Your task to perform on an android device: change the clock display to digital Image 0: 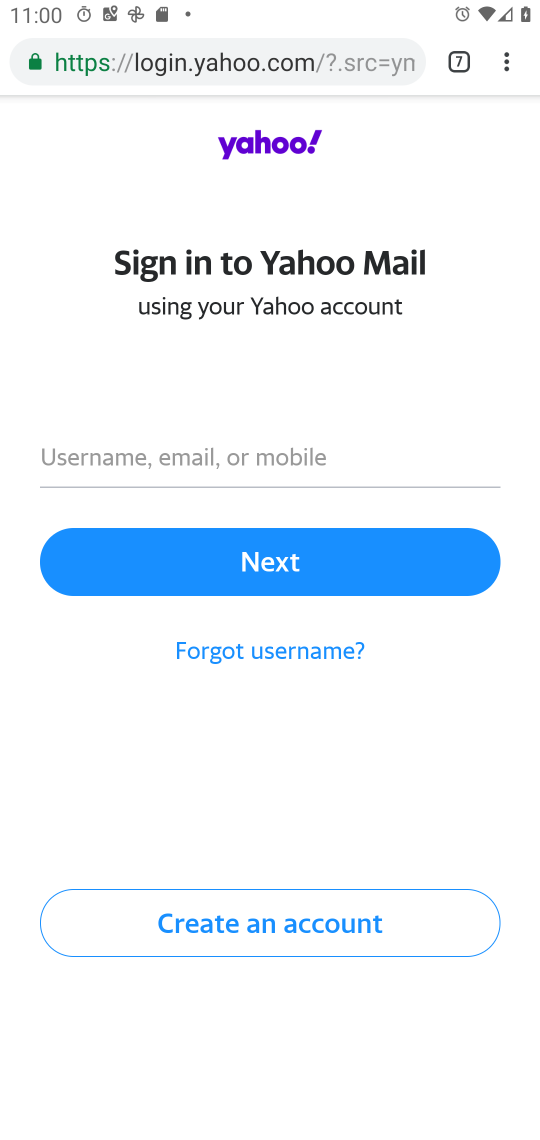
Step 0: press home button
Your task to perform on an android device: change the clock display to digital Image 1: 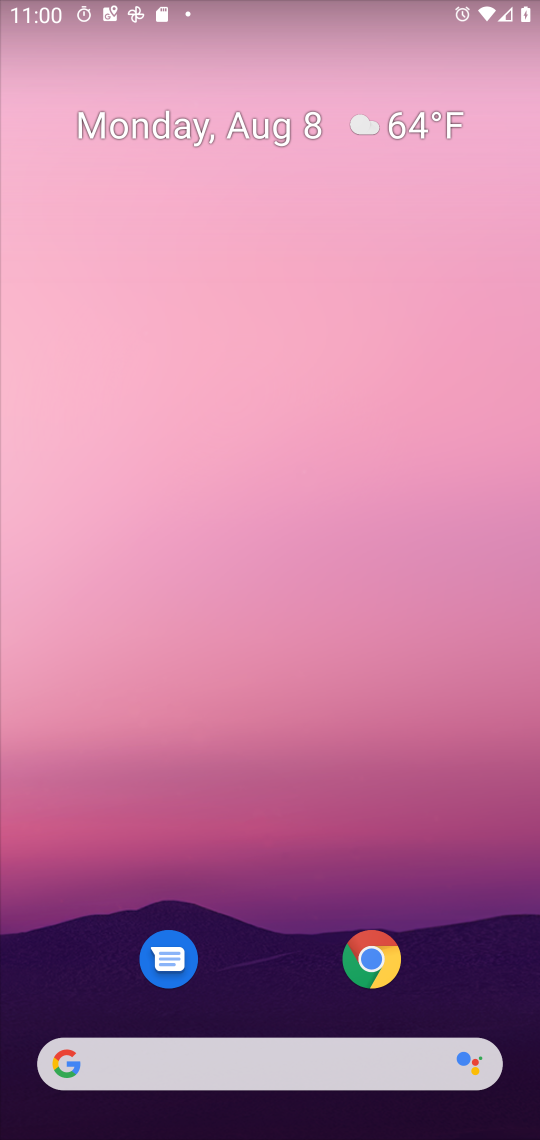
Step 1: drag from (506, 971) to (245, 32)
Your task to perform on an android device: change the clock display to digital Image 2: 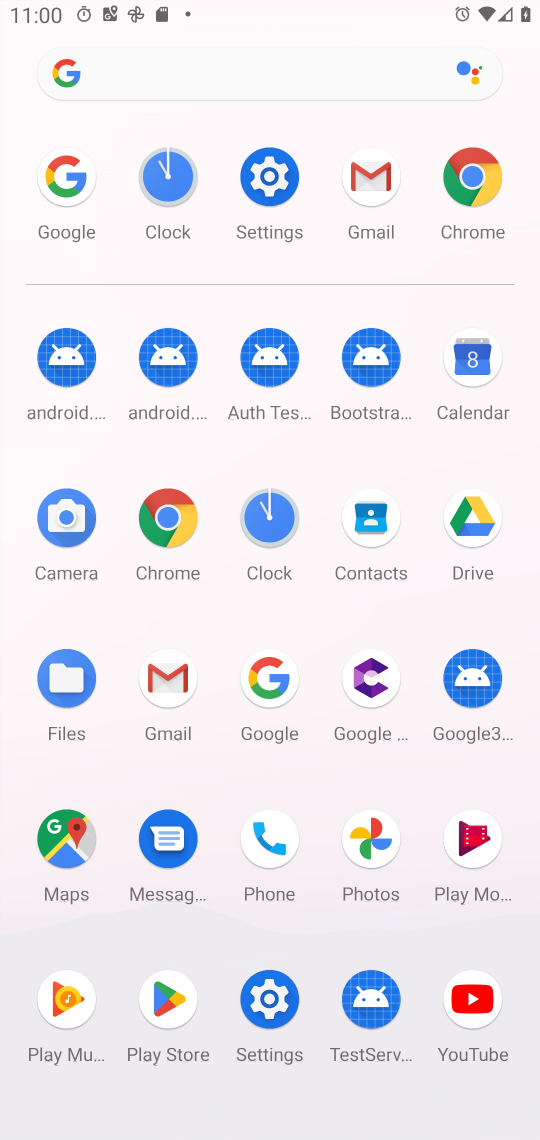
Step 2: click (295, 537)
Your task to perform on an android device: change the clock display to digital Image 3: 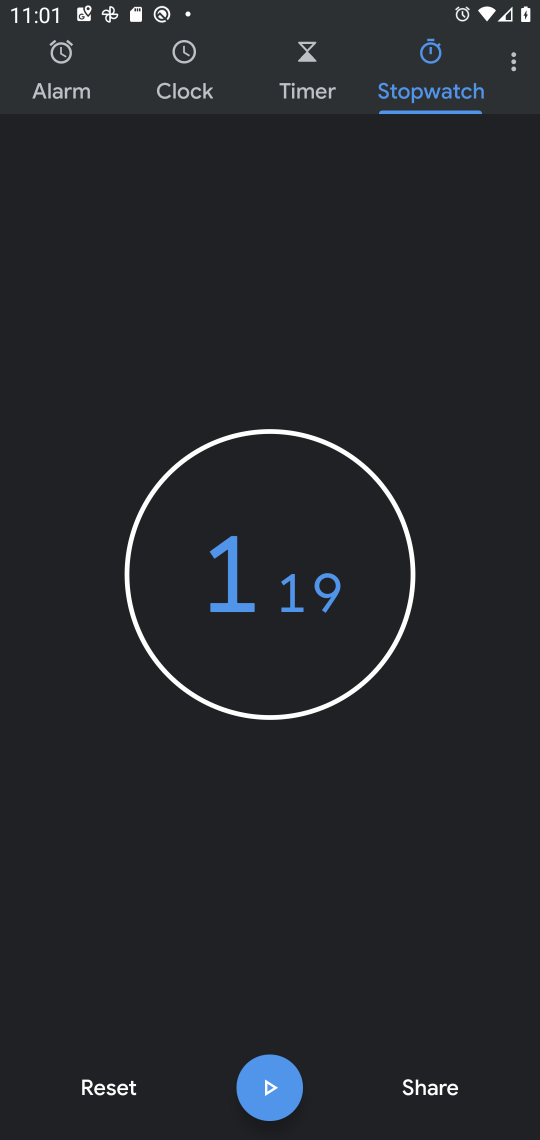
Step 3: click (499, 62)
Your task to perform on an android device: change the clock display to digital Image 4: 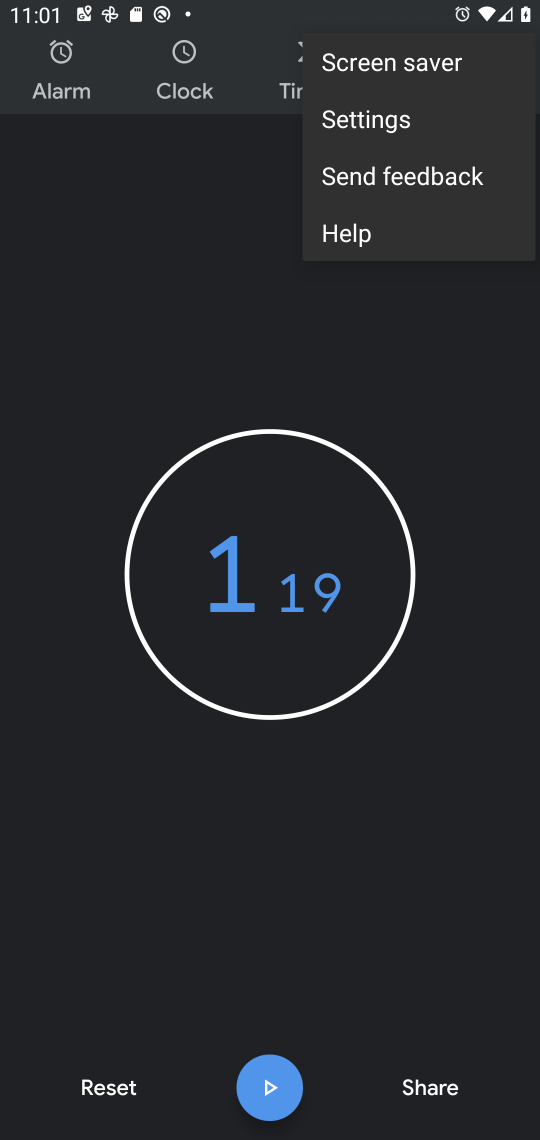
Step 4: click (380, 121)
Your task to perform on an android device: change the clock display to digital Image 5: 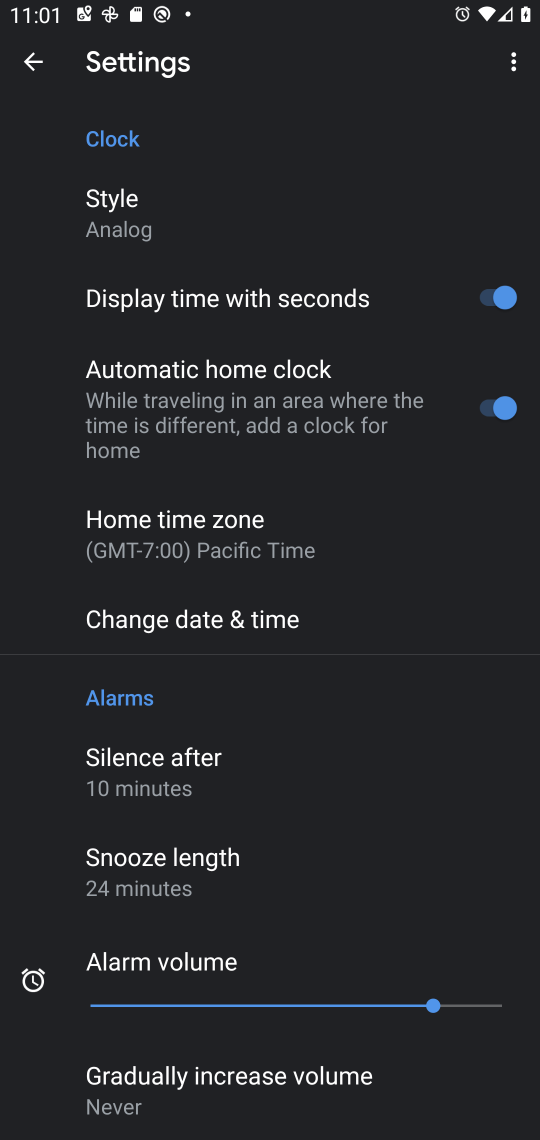
Step 5: click (147, 227)
Your task to perform on an android device: change the clock display to digital Image 6: 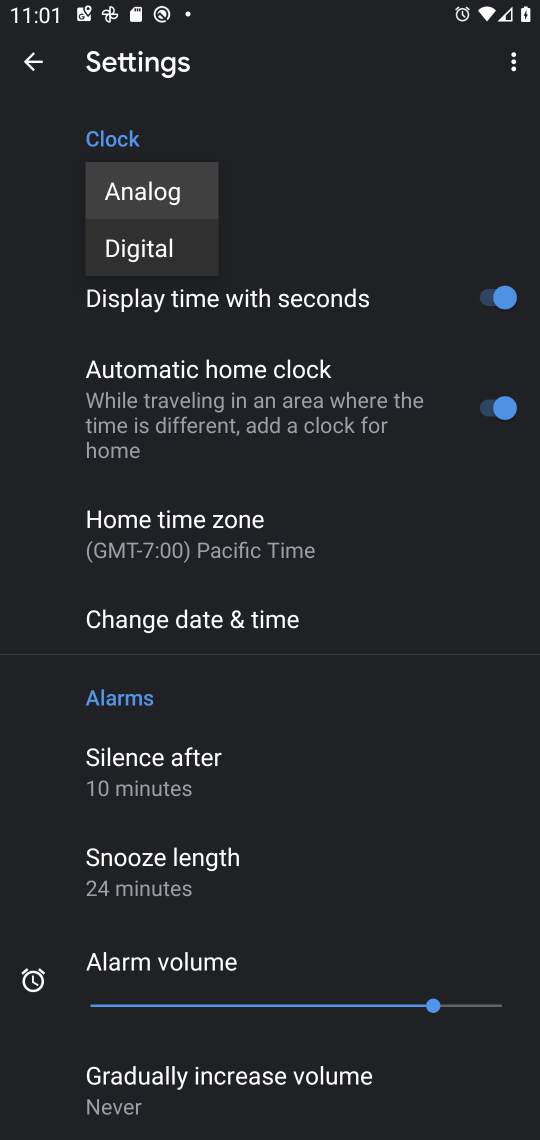
Step 6: click (152, 250)
Your task to perform on an android device: change the clock display to digital Image 7: 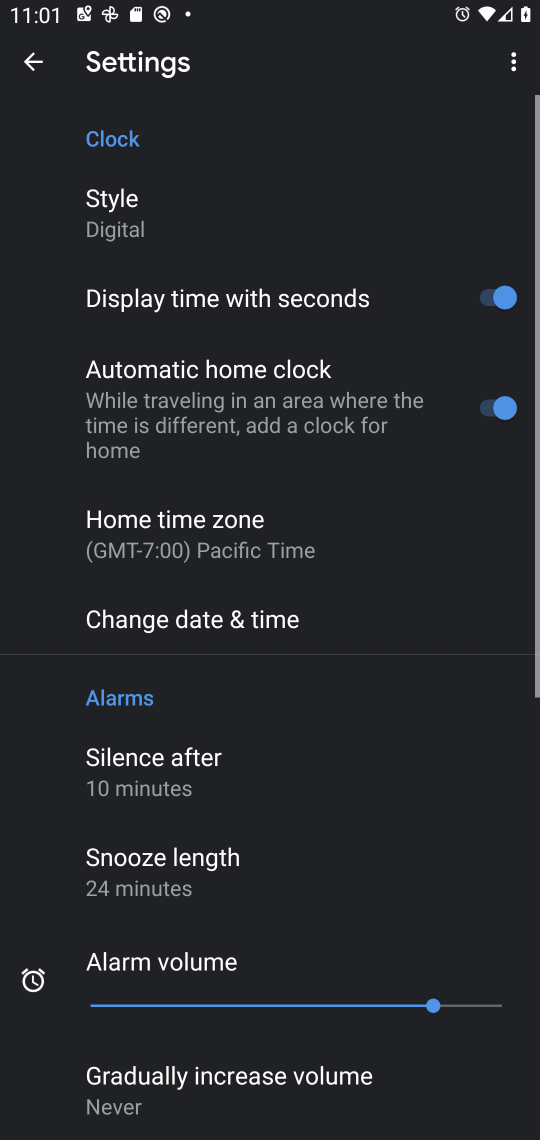
Step 7: task complete